Your task to perform on an android device: toggle sleep mode Image 0: 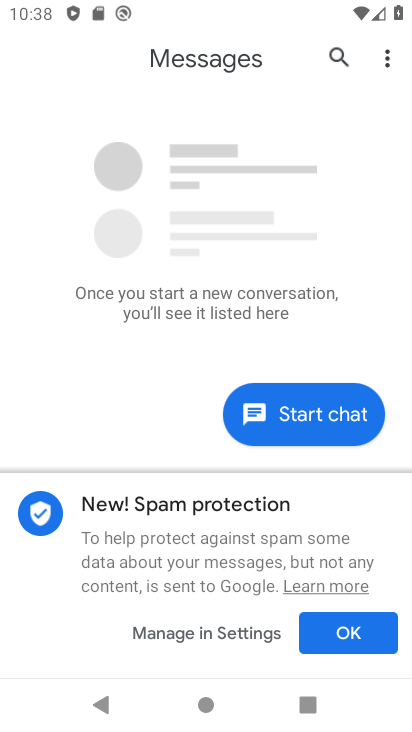
Step 0: press home button
Your task to perform on an android device: toggle sleep mode Image 1: 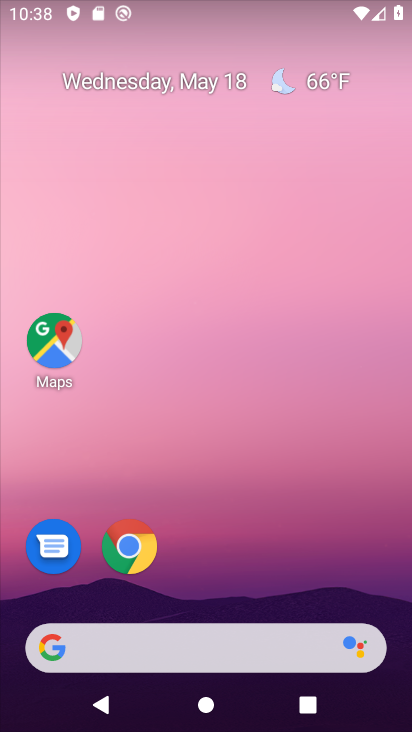
Step 1: drag from (220, 728) to (221, 254)
Your task to perform on an android device: toggle sleep mode Image 2: 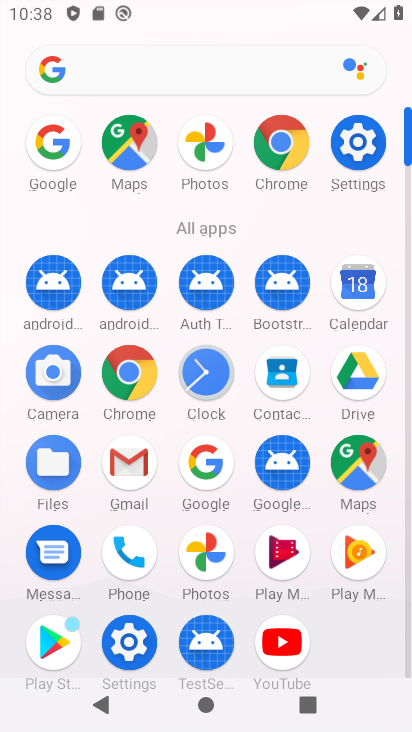
Step 2: click (358, 145)
Your task to perform on an android device: toggle sleep mode Image 3: 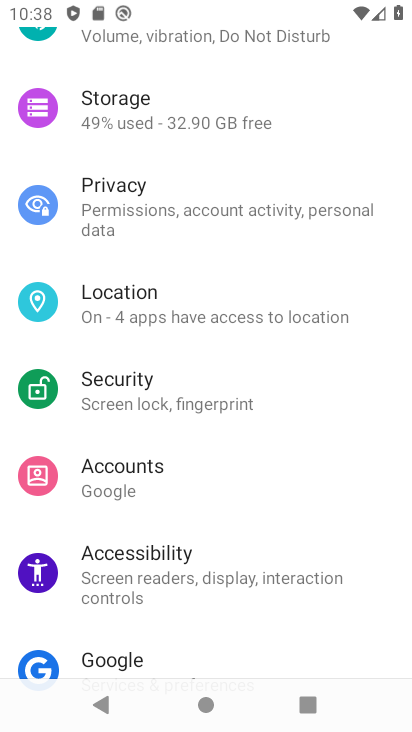
Step 3: task complete